Your task to perform on an android device: Is it going to rain tomorrow? Image 0: 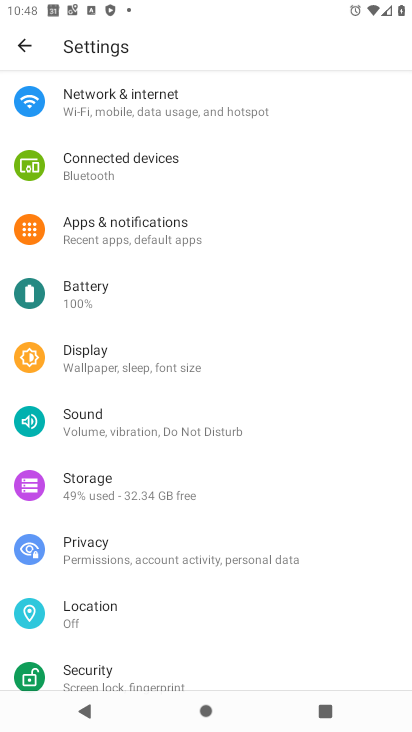
Step 0: press home button
Your task to perform on an android device: Is it going to rain tomorrow? Image 1: 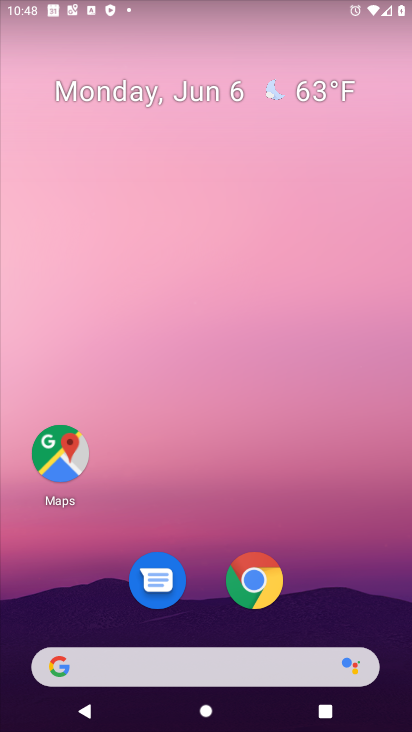
Step 1: click (297, 77)
Your task to perform on an android device: Is it going to rain tomorrow? Image 2: 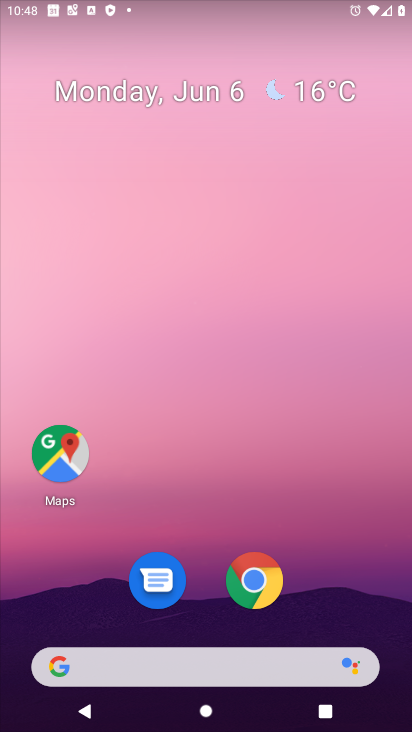
Step 2: drag from (387, 570) to (406, 475)
Your task to perform on an android device: Is it going to rain tomorrow? Image 3: 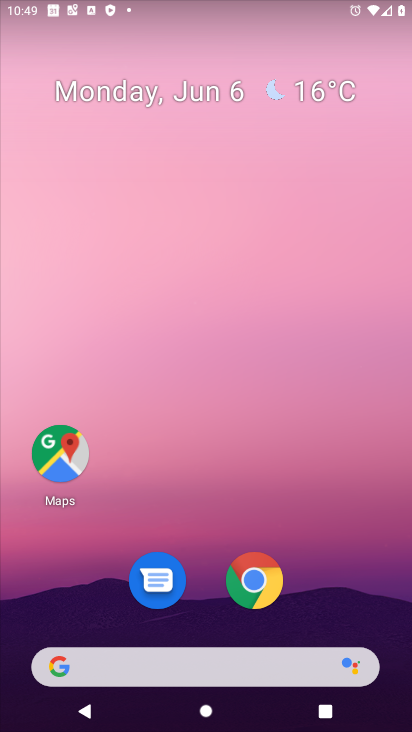
Step 3: click (346, 89)
Your task to perform on an android device: Is it going to rain tomorrow? Image 4: 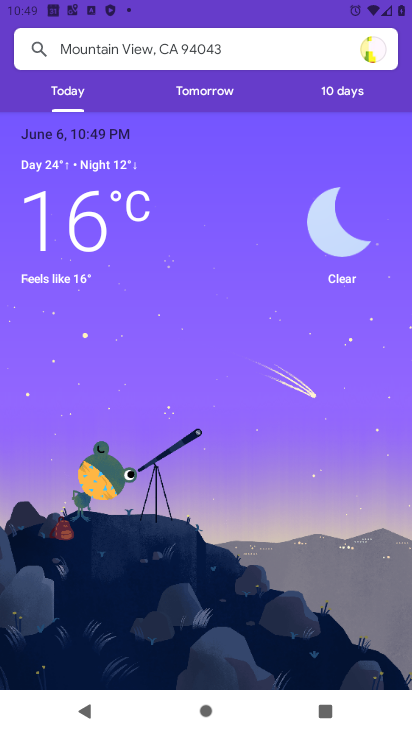
Step 4: click (186, 105)
Your task to perform on an android device: Is it going to rain tomorrow? Image 5: 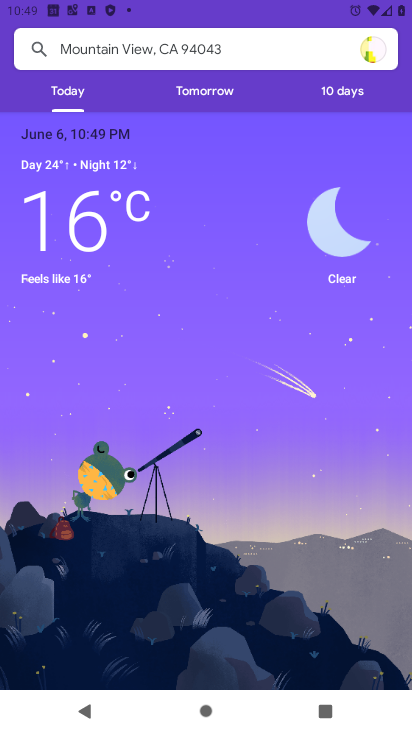
Step 5: click (205, 100)
Your task to perform on an android device: Is it going to rain tomorrow? Image 6: 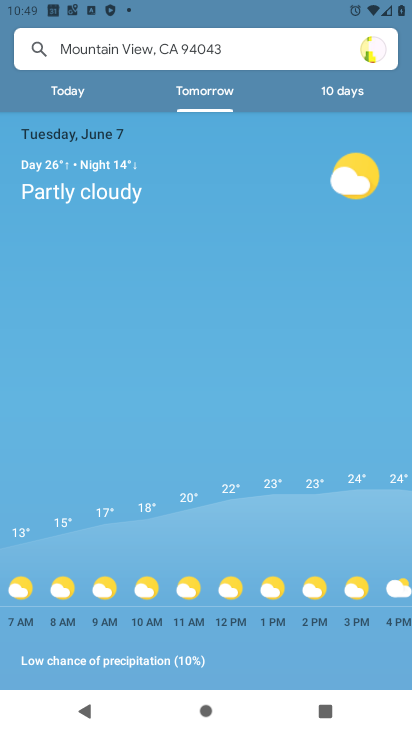
Step 6: task complete